Your task to perform on an android device: Is it going to rain today? Image 0: 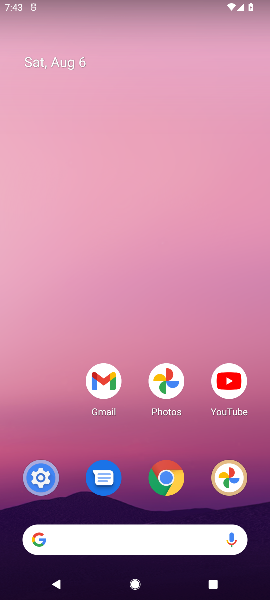
Step 0: press home button
Your task to perform on an android device: Is it going to rain today? Image 1: 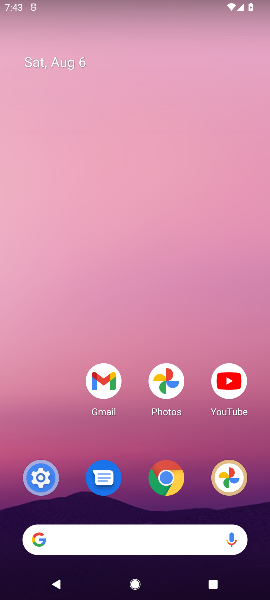
Step 1: click (32, 538)
Your task to perform on an android device: Is it going to rain today? Image 2: 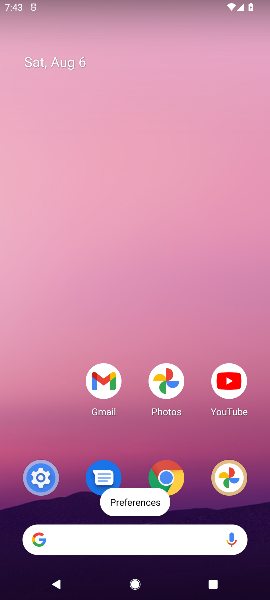
Step 2: click (40, 536)
Your task to perform on an android device: Is it going to rain today? Image 3: 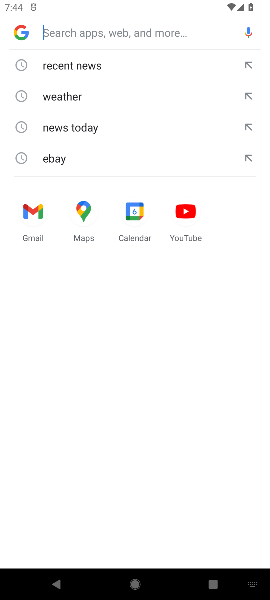
Step 3: type "Is it going to rain today?"
Your task to perform on an android device: Is it going to rain today? Image 4: 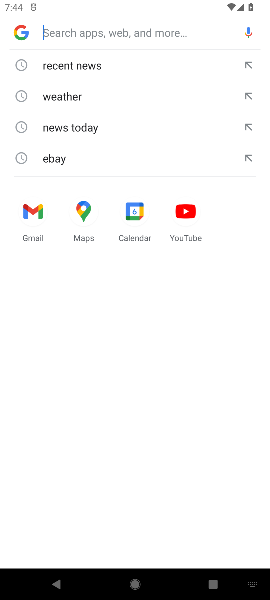
Step 4: click (83, 34)
Your task to perform on an android device: Is it going to rain today? Image 5: 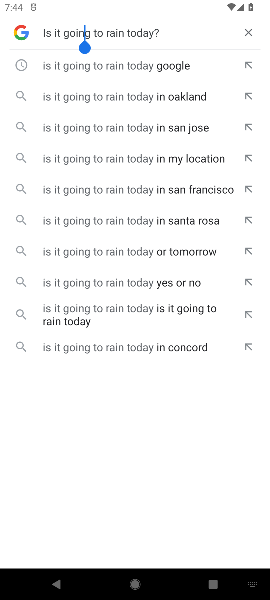
Step 5: press enter
Your task to perform on an android device: Is it going to rain today? Image 6: 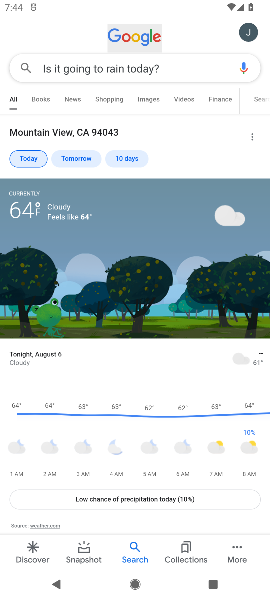
Step 6: task complete